Your task to perform on an android device: open the mobile data screen to see how much data has been used Image 0: 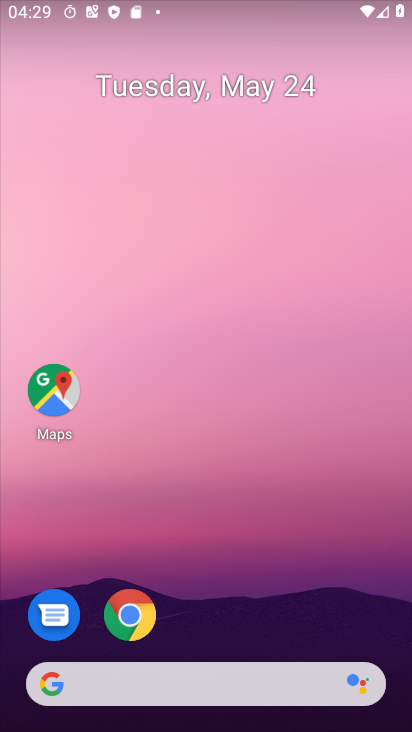
Step 0: drag from (295, 444) to (338, 69)
Your task to perform on an android device: open the mobile data screen to see how much data has been used Image 1: 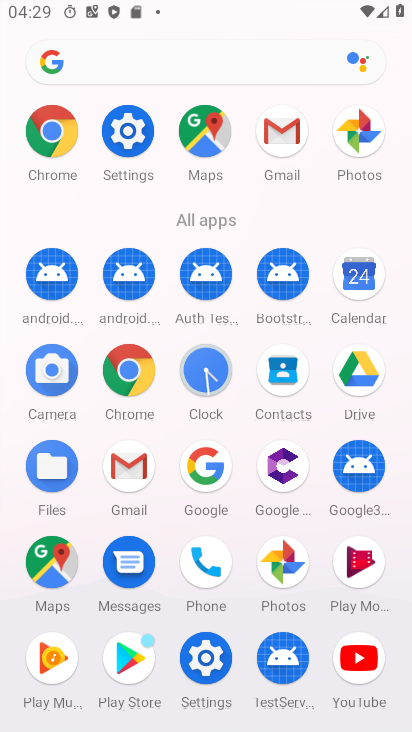
Step 1: click (121, 127)
Your task to perform on an android device: open the mobile data screen to see how much data has been used Image 2: 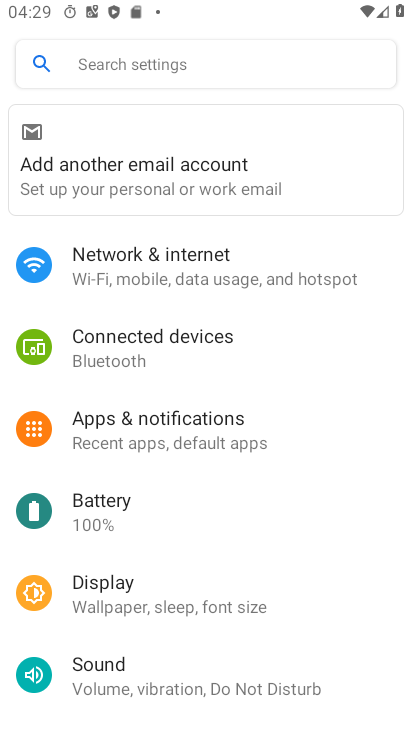
Step 2: click (191, 272)
Your task to perform on an android device: open the mobile data screen to see how much data has been used Image 3: 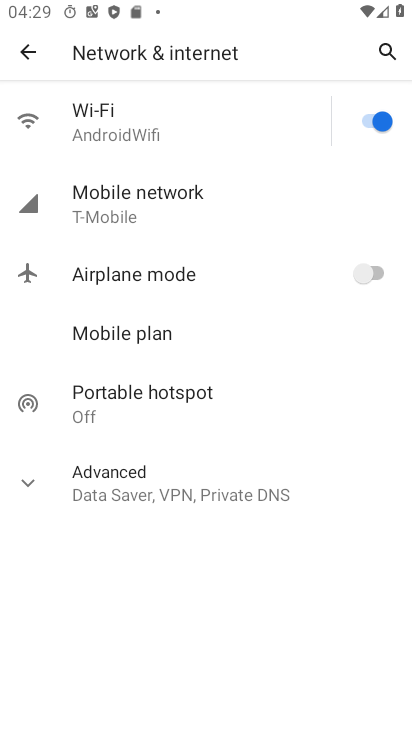
Step 3: click (143, 204)
Your task to perform on an android device: open the mobile data screen to see how much data has been used Image 4: 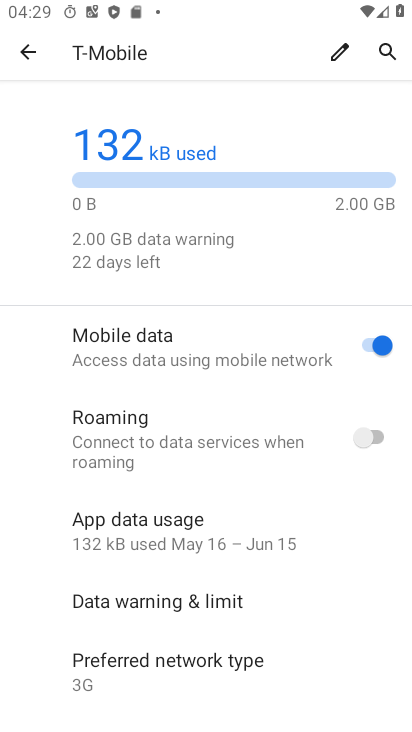
Step 4: click (170, 534)
Your task to perform on an android device: open the mobile data screen to see how much data has been used Image 5: 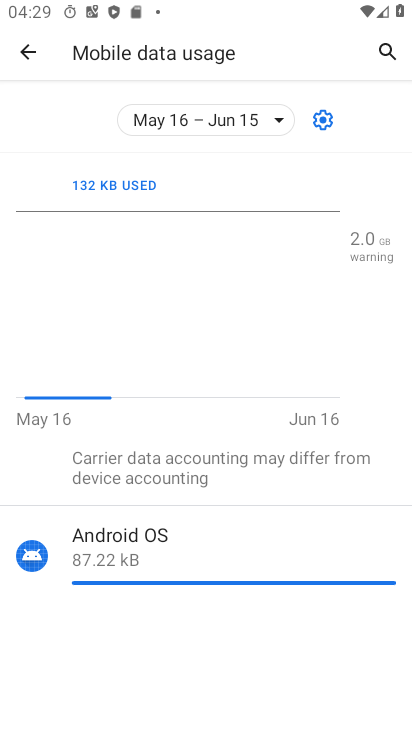
Step 5: task complete